Your task to perform on an android device: add a label to a message in the gmail app Image 0: 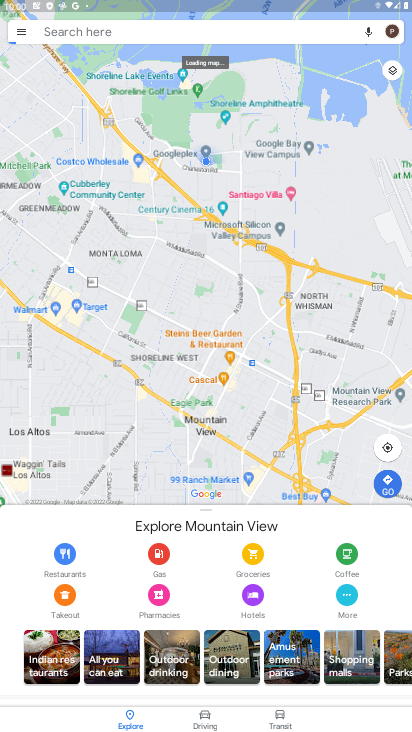
Step 0: press home button
Your task to perform on an android device: add a label to a message in the gmail app Image 1: 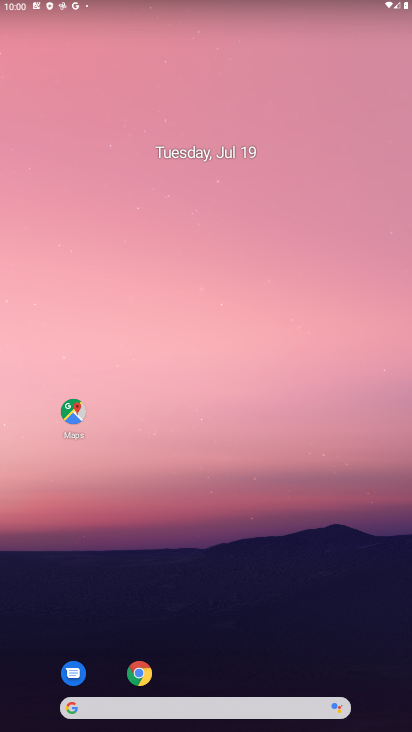
Step 1: drag from (219, 662) to (227, 28)
Your task to perform on an android device: add a label to a message in the gmail app Image 2: 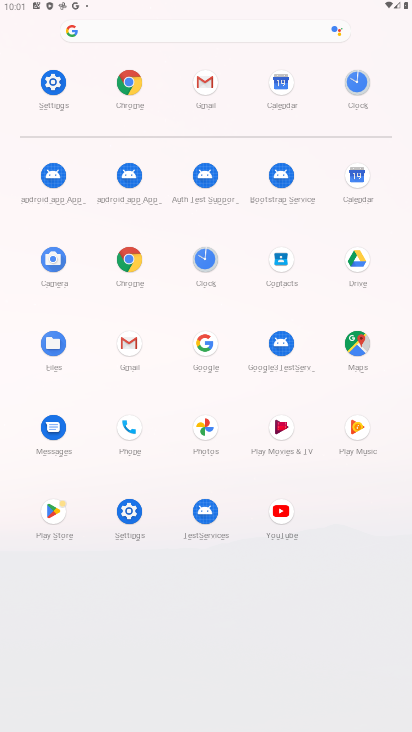
Step 2: click (206, 107)
Your task to perform on an android device: add a label to a message in the gmail app Image 3: 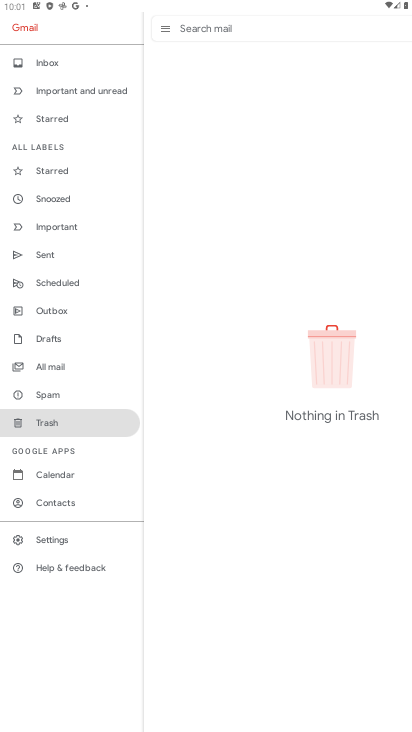
Step 3: click (50, 528)
Your task to perform on an android device: add a label to a message in the gmail app Image 4: 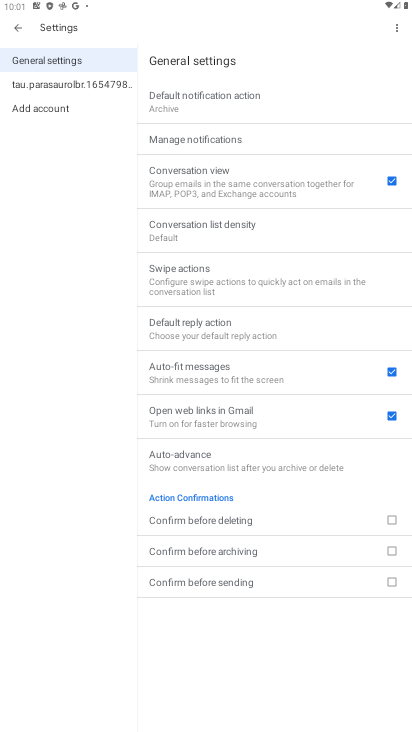
Step 4: click (69, 88)
Your task to perform on an android device: add a label to a message in the gmail app Image 5: 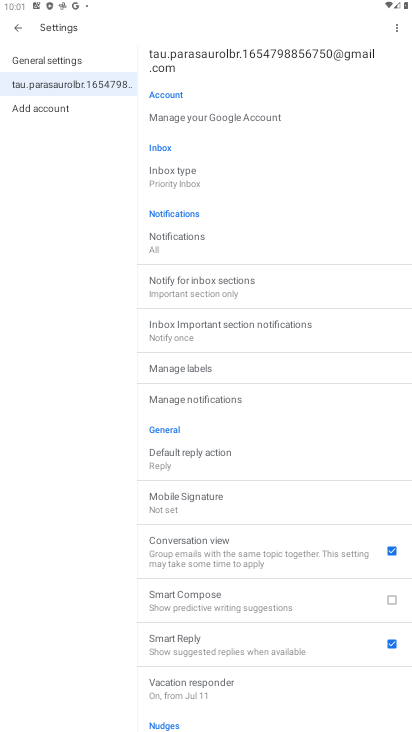
Step 5: click (241, 359)
Your task to perform on an android device: add a label to a message in the gmail app Image 6: 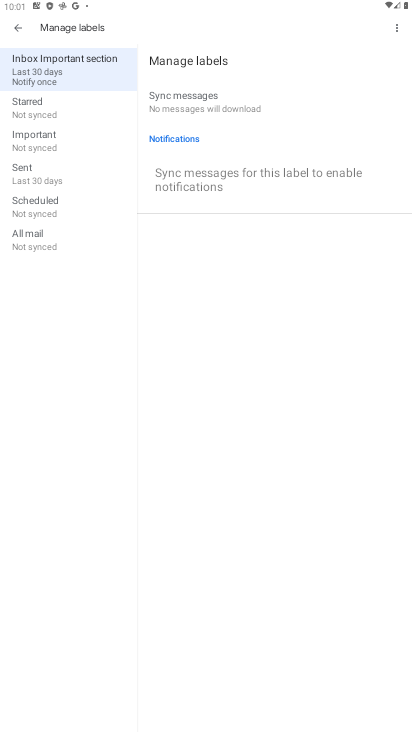
Step 6: task complete